Your task to perform on an android device: check google app version Image 0: 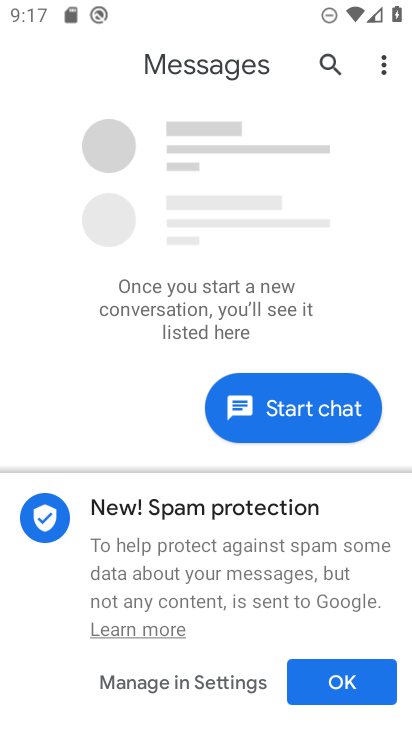
Step 0: press home button
Your task to perform on an android device: check google app version Image 1: 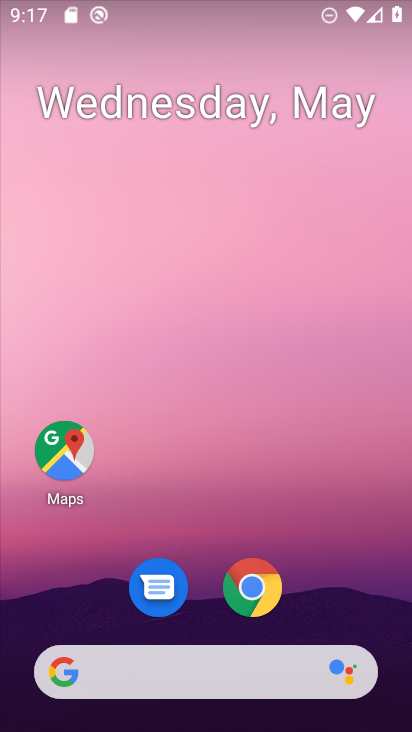
Step 1: drag from (198, 717) to (198, 199)
Your task to perform on an android device: check google app version Image 2: 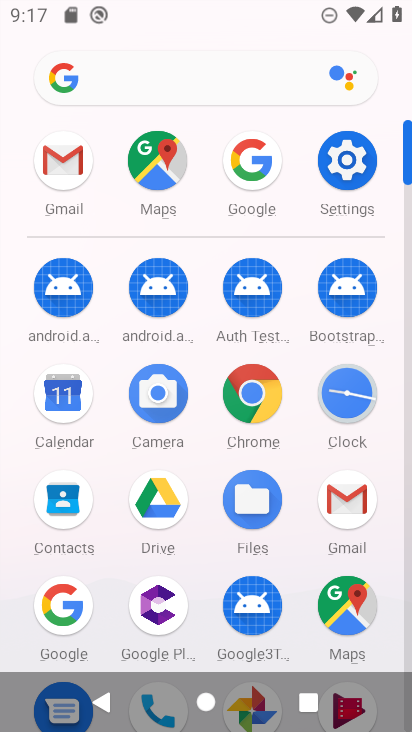
Step 2: click (350, 156)
Your task to perform on an android device: check google app version Image 3: 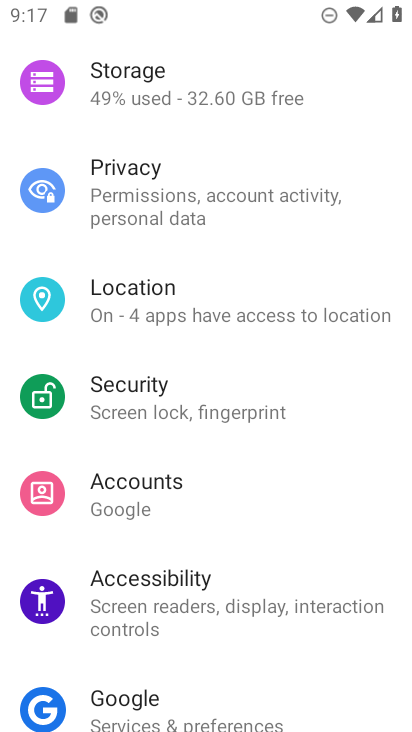
Step 3: press back button
Your task to perform on an android device: check google app version Image 4: 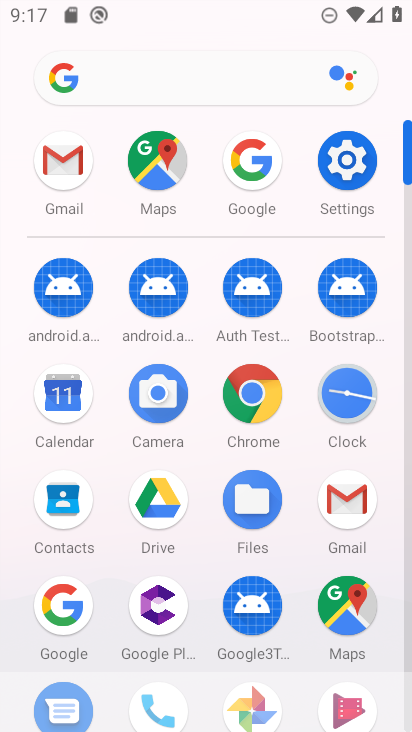
Step 4: click (55, 607)
Your task to perform on an android device: check google app version Image 5: 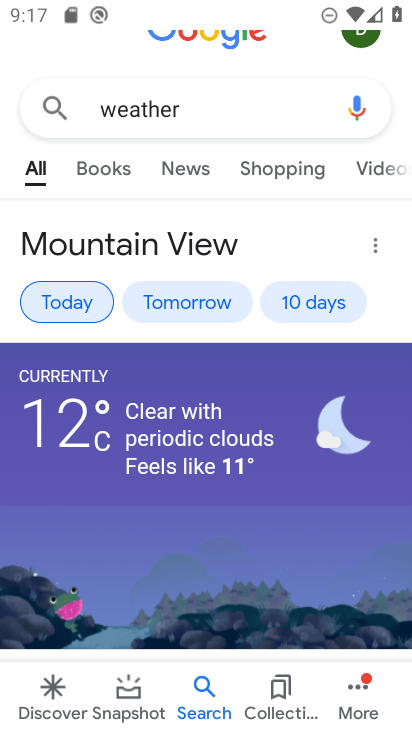
Step 5: click (356, 687)
Your task to perform on an android device: check google app version Image 6: 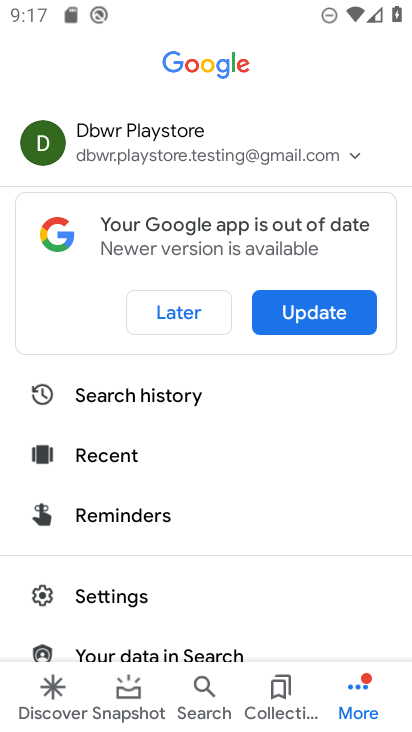
Step 6: drag from (153, 615) to (164, 234)
Your task to perform on an android device: check google app version Image 7: 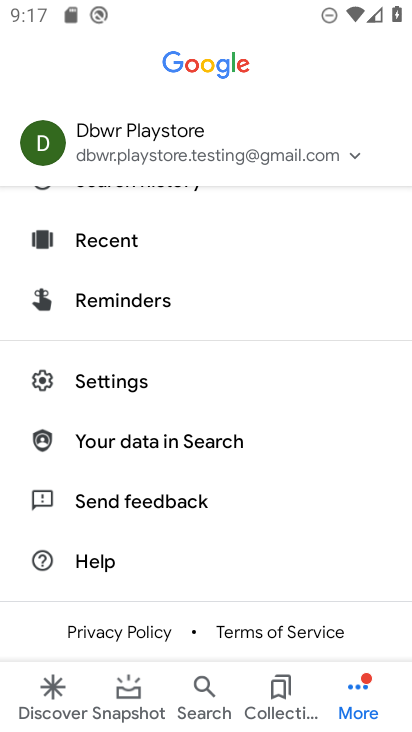
Step 7: drag from (142, 604) to (182, 232)
Your task to perform on an android device: check google app version Image 8: 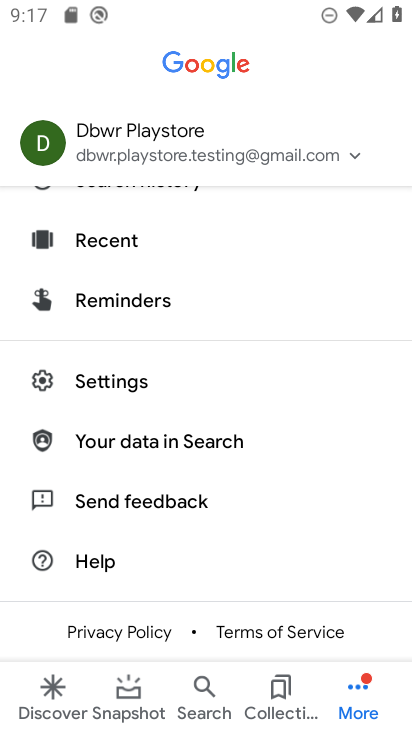
Step 8: click (123, 380)
Your task to perform on an android device: check google app version Image 9: 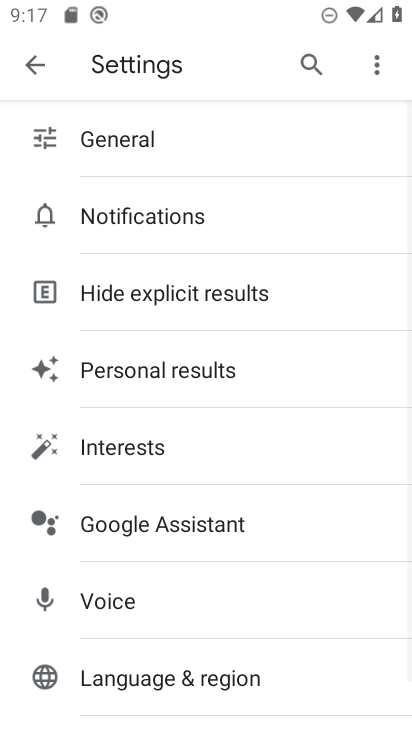
Step 9: drag from (144, 660) to (151, 294)
Your task to perform on an android device: check google app version Image 10: 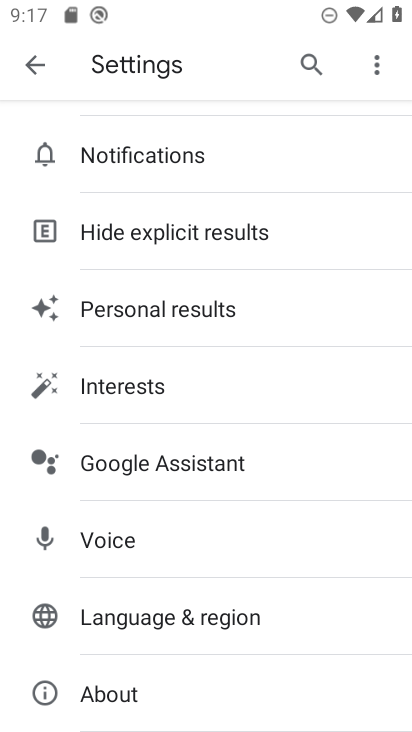
Step 10: click (135, 695)
Your task to perform on an android device: check google app version Image 11: 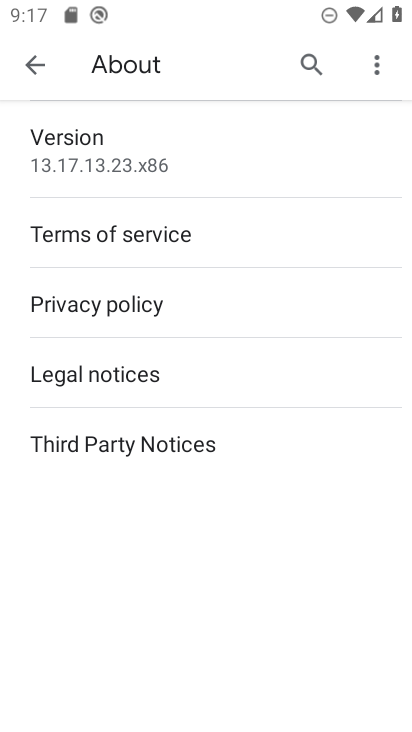
Step 11: task complete